Your task to perform on an android device: Go to settings Image 0: 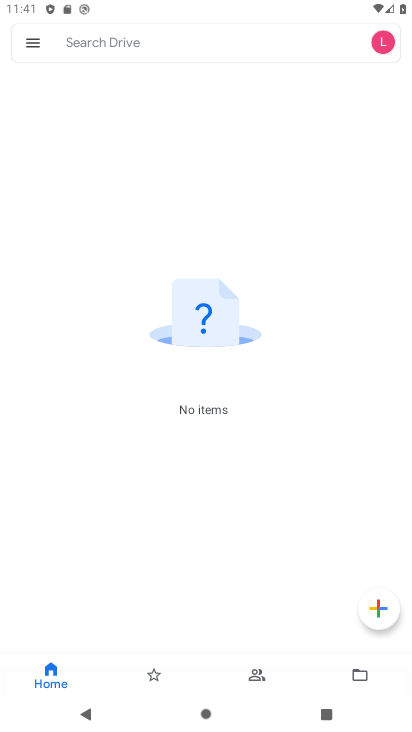
Step 0: press home button
Your task to perform on an android device: Go to settings Image 1: 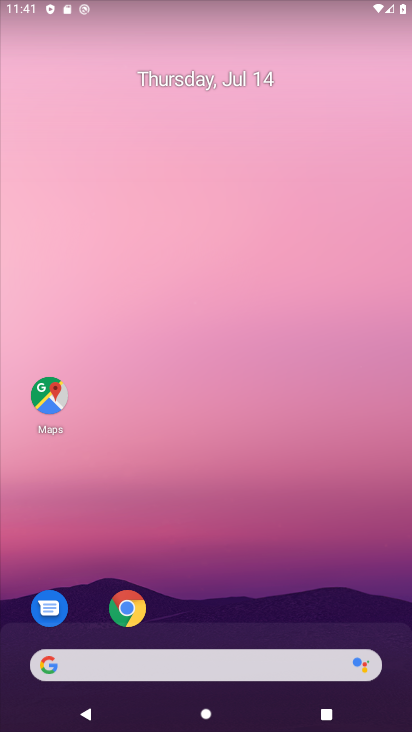
Step 1: click (128, 608)
Your task to perform on an android device: Go to settings Image 2: 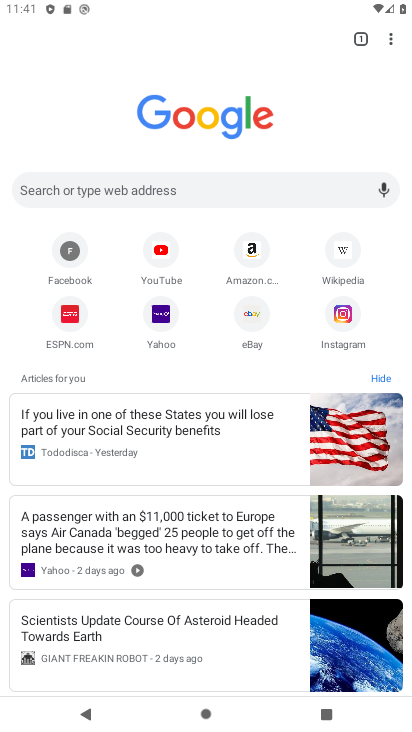
Step 2: click (395, 34)
Your task to perform on an android device: Go to settings Image 3: 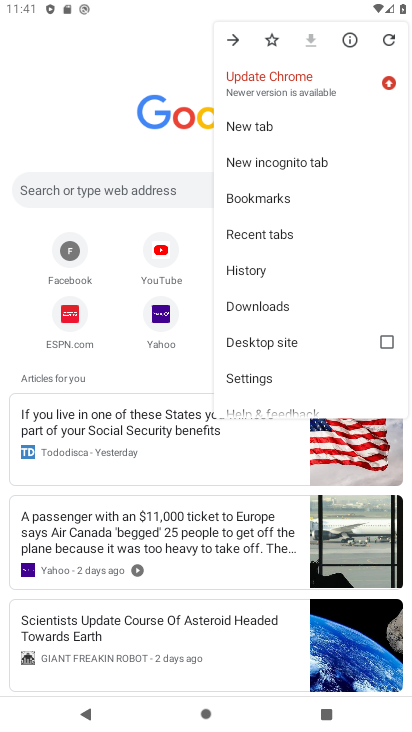
Step 3: click (389, 42)
Your task to perform on an android device: Go to settings Image 4: 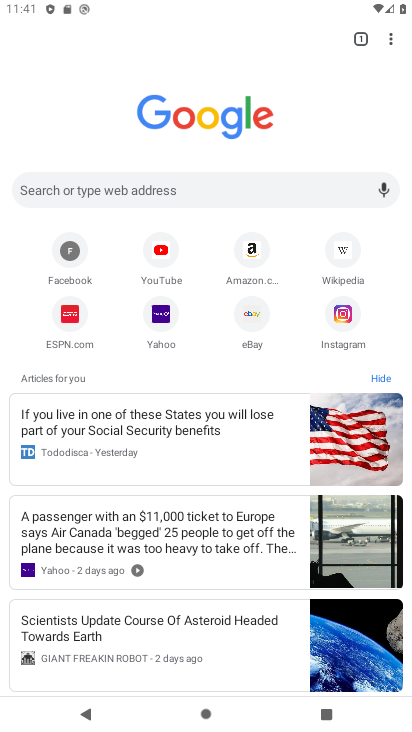
Step 4: click (390, 42)
Your task to perform on an android device: Go to settings Image 5: 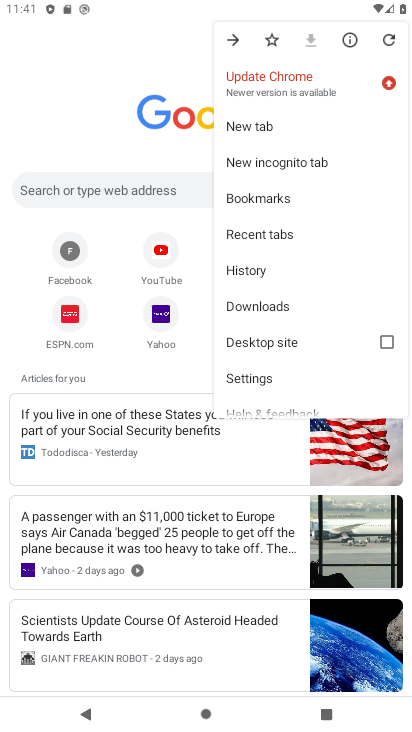
Step 5: press home button
Your task to perform on an android device: Go to settings Image 6: 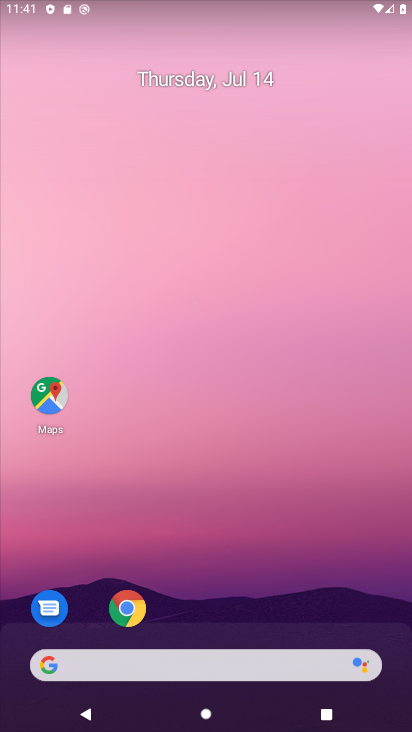
Step 6: drag from (185, 578) to (201, 25)
Your task to perform on an android device: Go to settings Image 7: 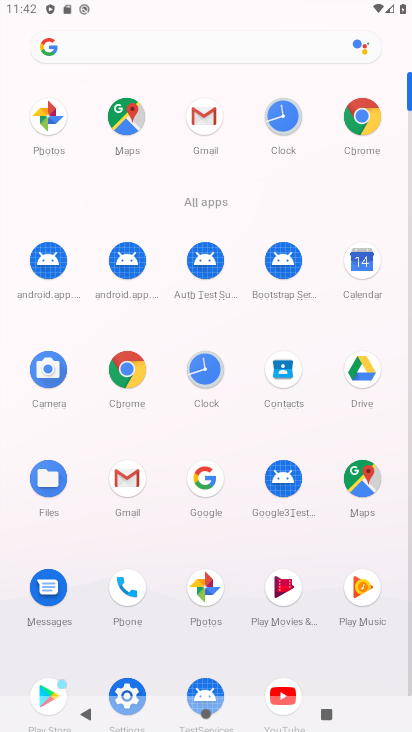
Step 7: click (120, 686)
Your task to perform on an android device: Go to settings Image 8: 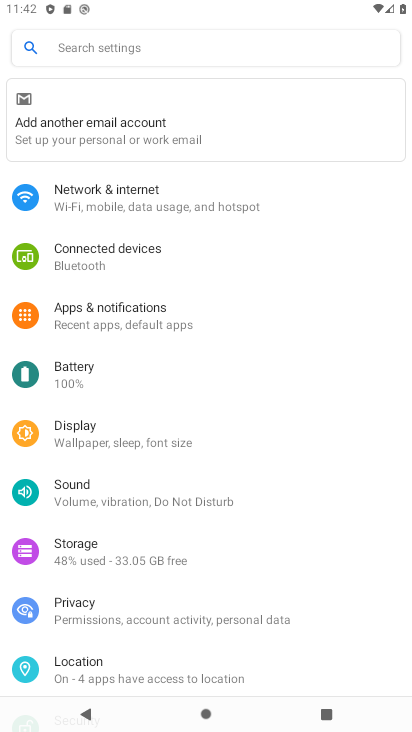
Step 8: task complete